Your task to perform on an android device: change the upload size in google photos Image 0: 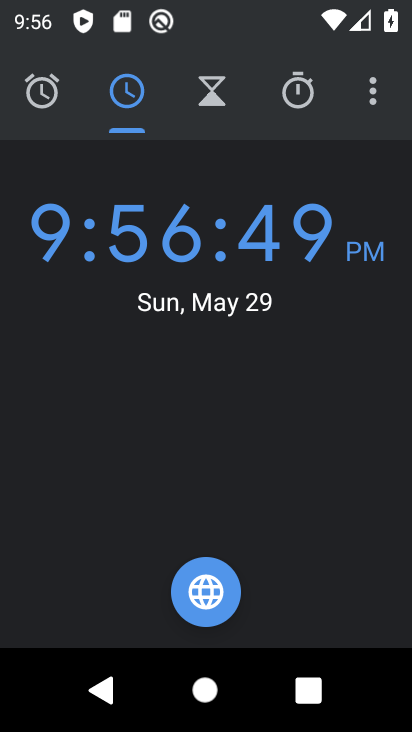
Step 0: press home button
Your task to perform on an android device: change the upload size in google photos Image 1: 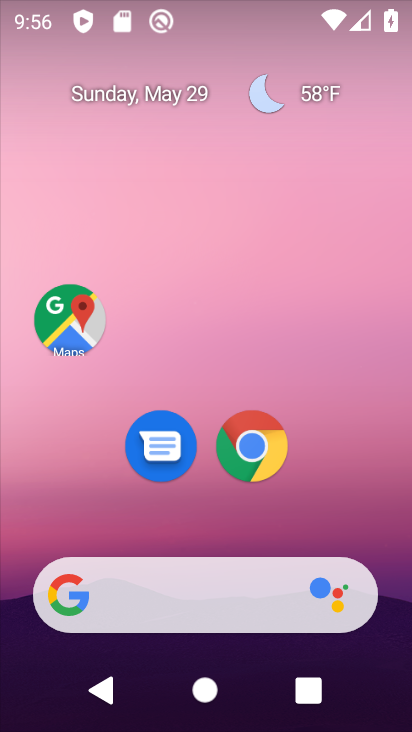
Step 1: drag from (199, 507) to (201, 301)
Your task to perform on an android device: change the upload size in google photos Image 2: 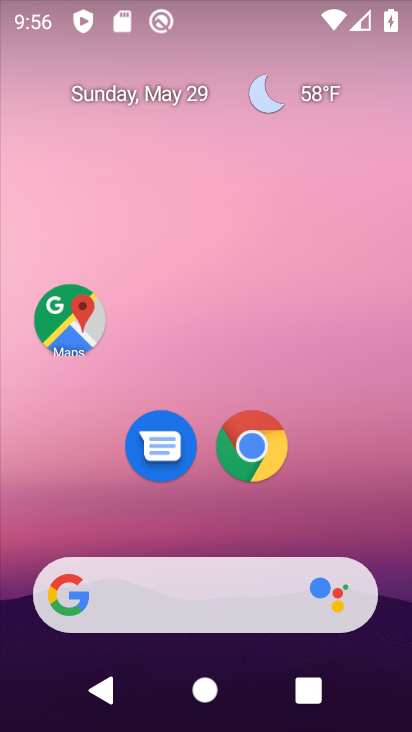
Step 2: drag from (240, 556) to (238, 197)
Your task to perform on an android device: change the upload size in google photos Image 3: 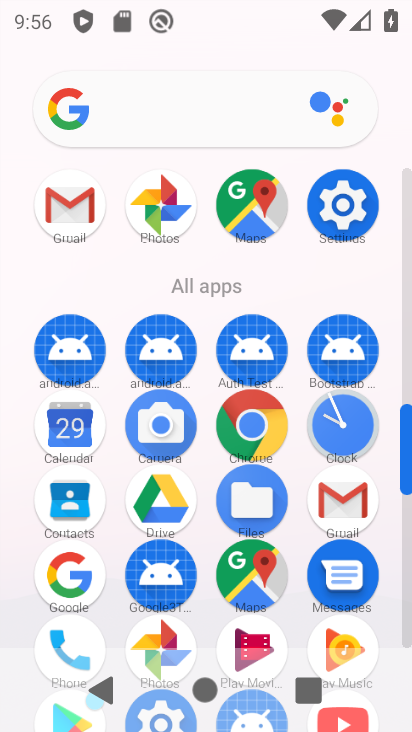
Step 3: click (164, 212)
Your task to perform on an android device: change the upload size in google photos Image 4: 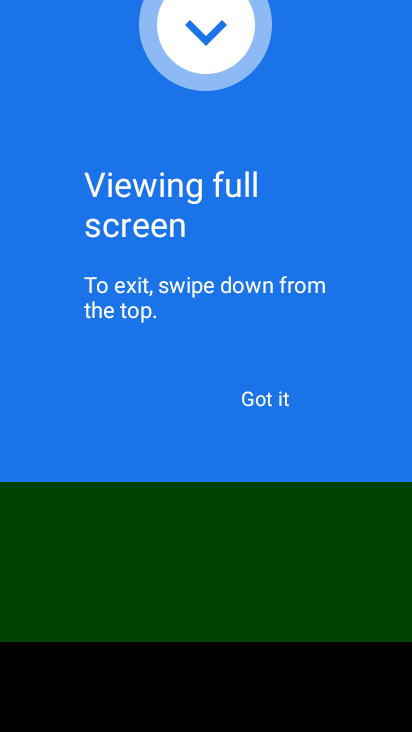
Step 4: press back button
Your task to perform on an android device: change the upload size in google photos Image 5: 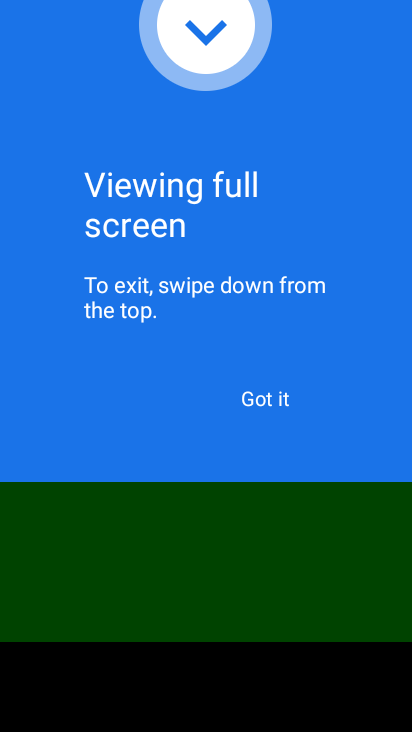
Step 5: click (260, 393)
Your task to perform on an android device: change the upload size in google photos Image 6: 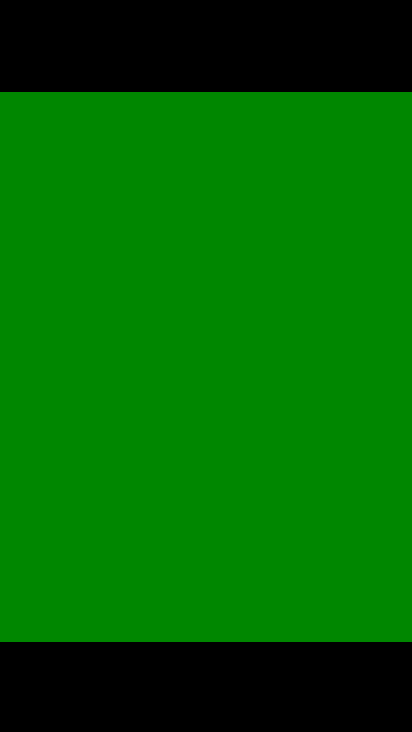
Step 6: press back button
Your task to perform on an android device: change the upload size in google photos Image 7: 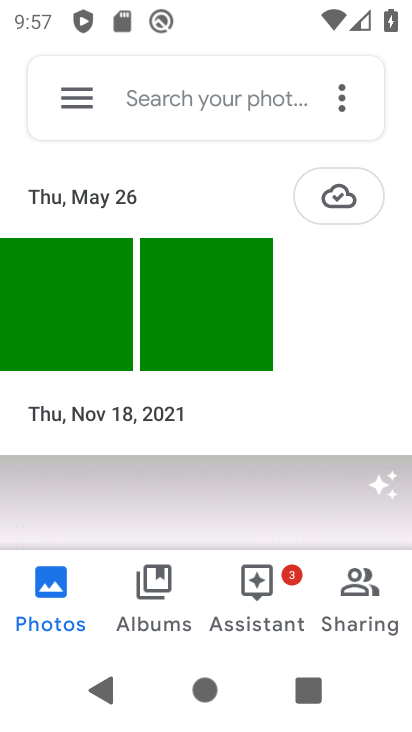
Step 7: click (85, 103)
Your task to perform on an android device: change the upload size in google photos Image 8: 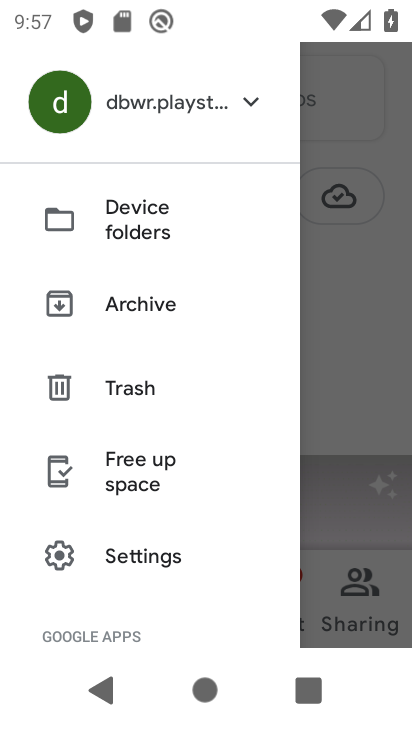
Step 8: click (146, 552)
Your task to perform on an android device: change the upload size in google photos Image 9: 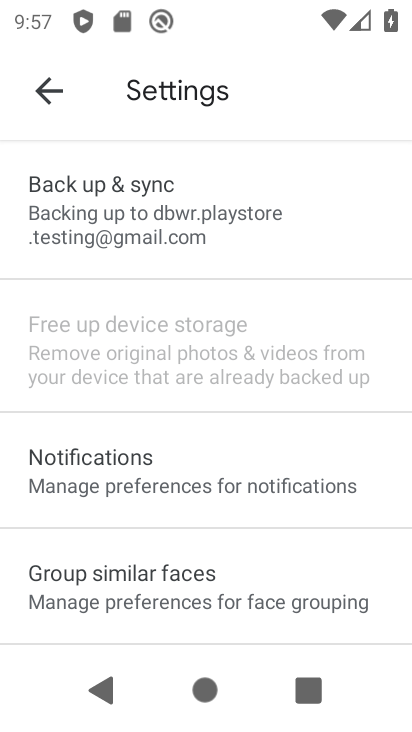
Step 9: click (142, 200)
Your task to perform on an android device: change the upload size in google photos Image 10: 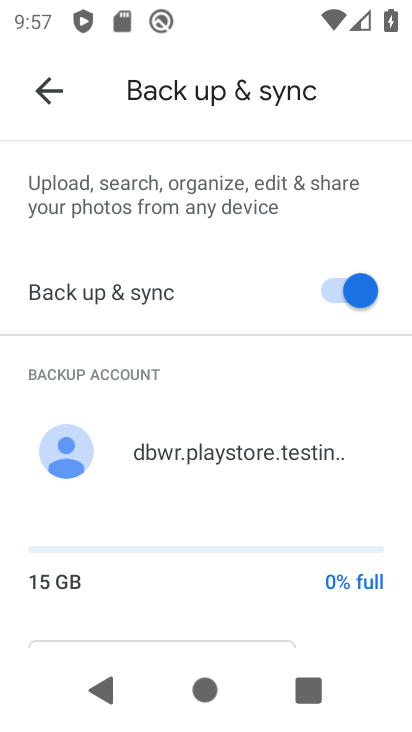
Step 10: drag from (174, 598) to (174, 225)
Your task to perform on an android device: change the upload size in google photos Image 11: 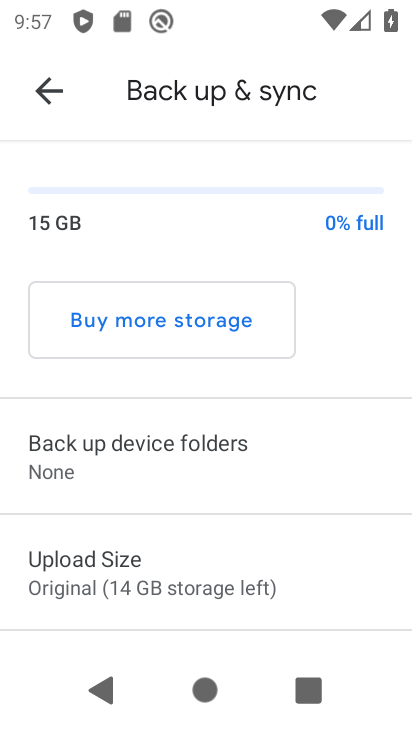
Step 11: click (174, 584)
Your task to perform on an android device: change the upload size in google photos Image 12: 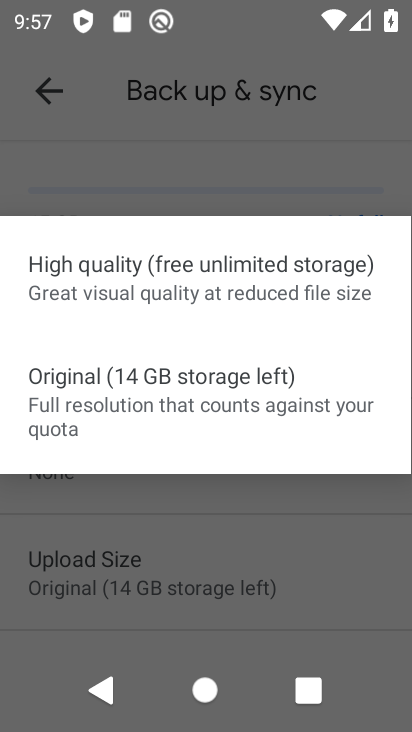
Step 12: click (90, 282)
Your task to perform on an android device: change the upload size in google photos Image 13: 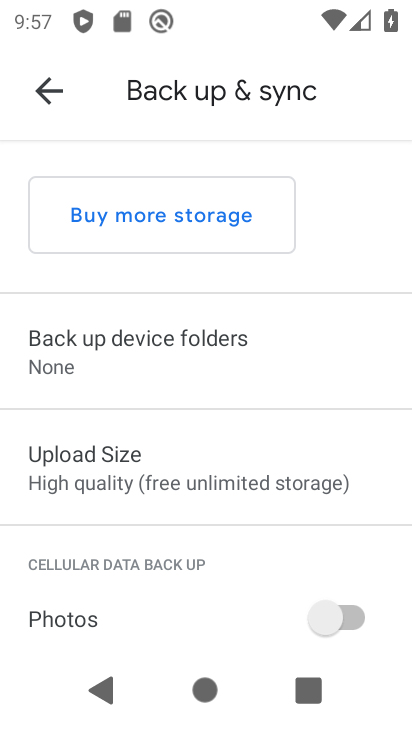
Step 13: task complete